Your task to perform on an android device: toggle data saver in the chrome app Image 0: 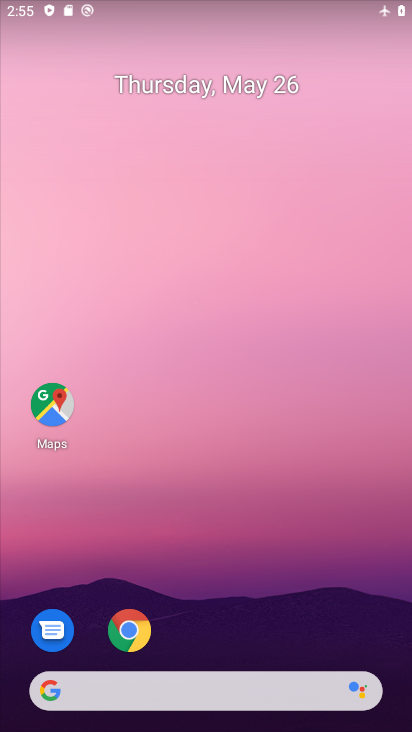
Step 0: click (130, 626)
Your task to perform on an android device: toggle data saver in the chrome app Image 1: 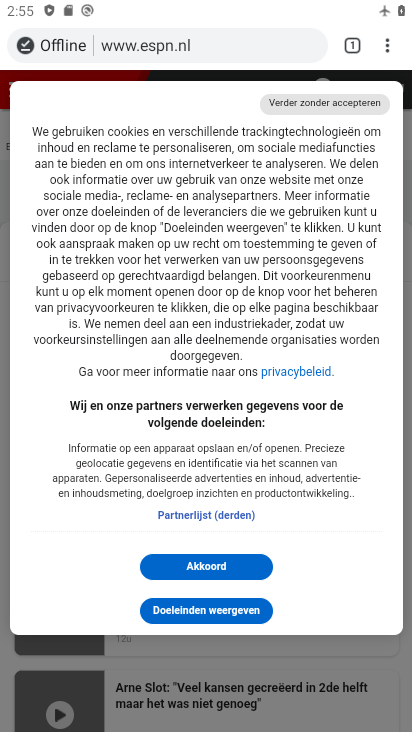
Step 1: click (387, 45)
Your task to perform on an android device: toggle data saver in the chrome app Image 2: 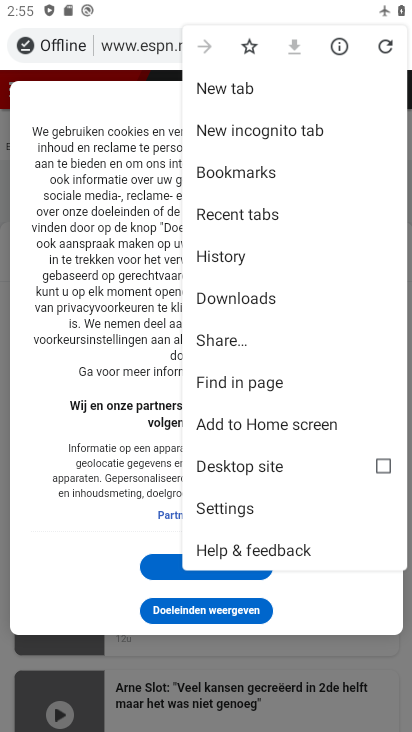
Step 2: click (237, 510)
Your task to perform on an android device: toggle data saver in the chrome app Image 3: 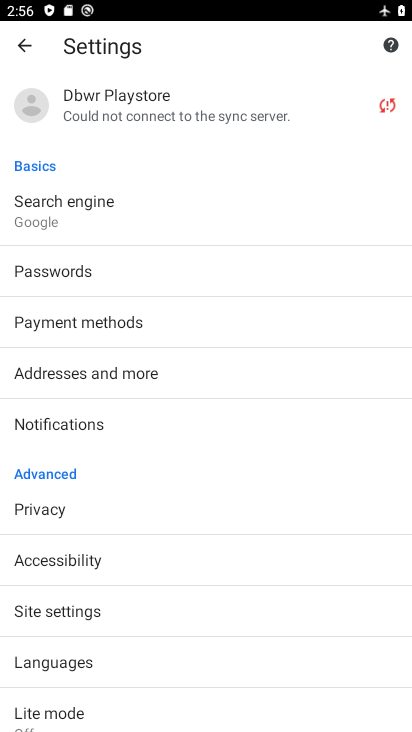
Step 3: drag from (127, 663) to (163, 570)
Your task to perform on an android device: toggle data saver in the chrome app Image 4: 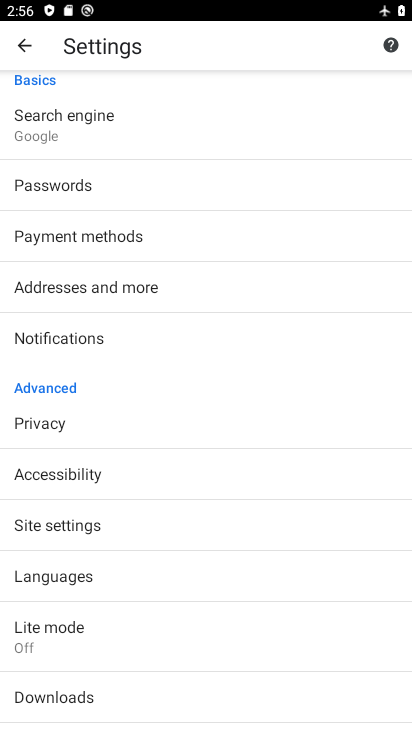
Step 4: click (72, 629)
Your task to perform on an android device: toggle data saver in the chrome app Image 5: 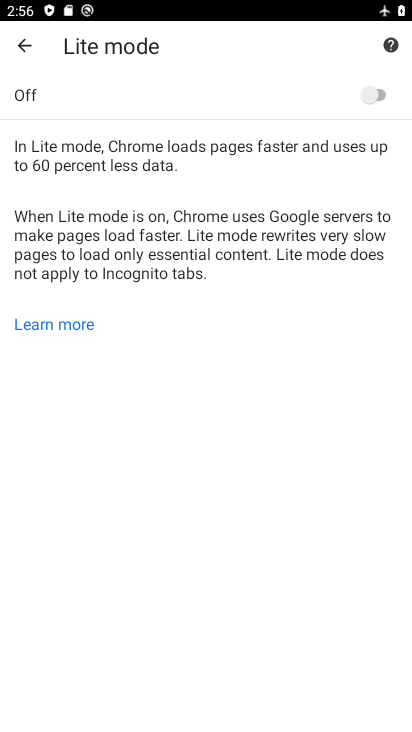
Step 5: click (378, 101)
Your task to perform on an android device: toggle data saver in the chrome app Image 6: 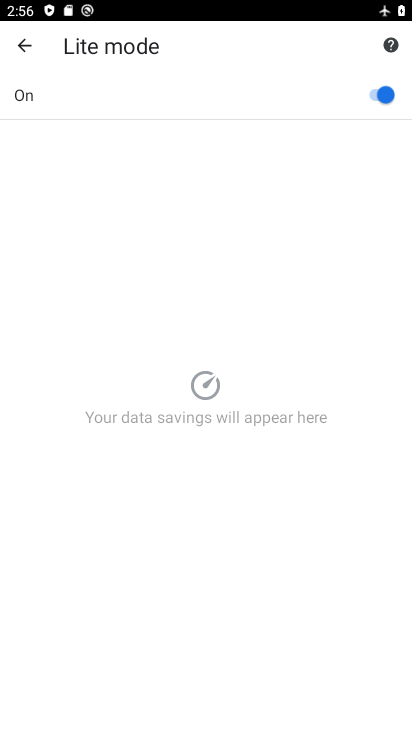
Step 6: task complete